Your task to perform on an android device: turn off location history Image 0: 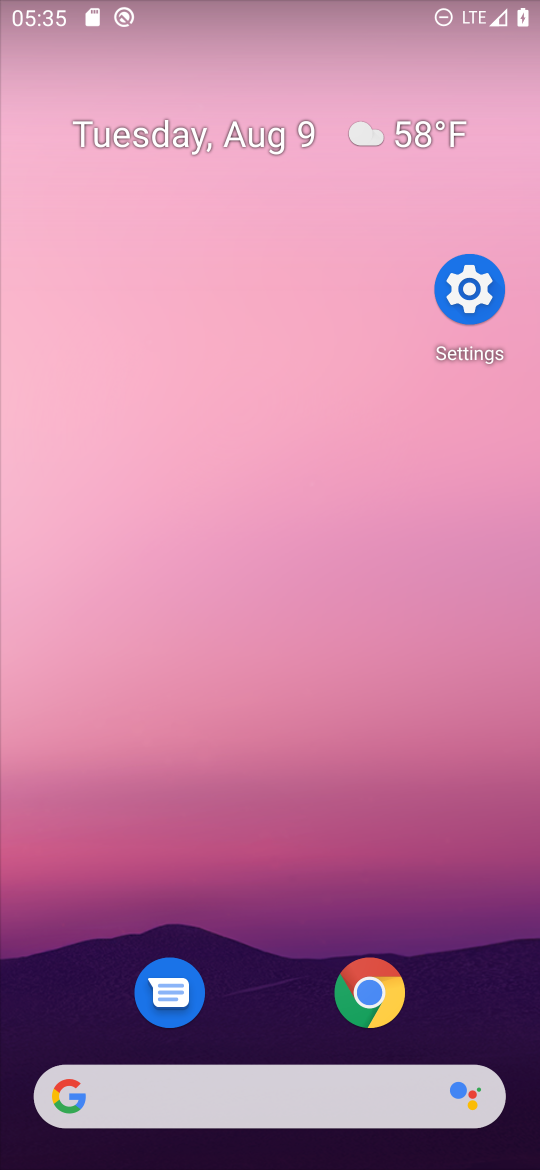
Step 0: drag from (345, 1097) to (28, 192)
Your task to perform on an android device: turn off location history Image 1: 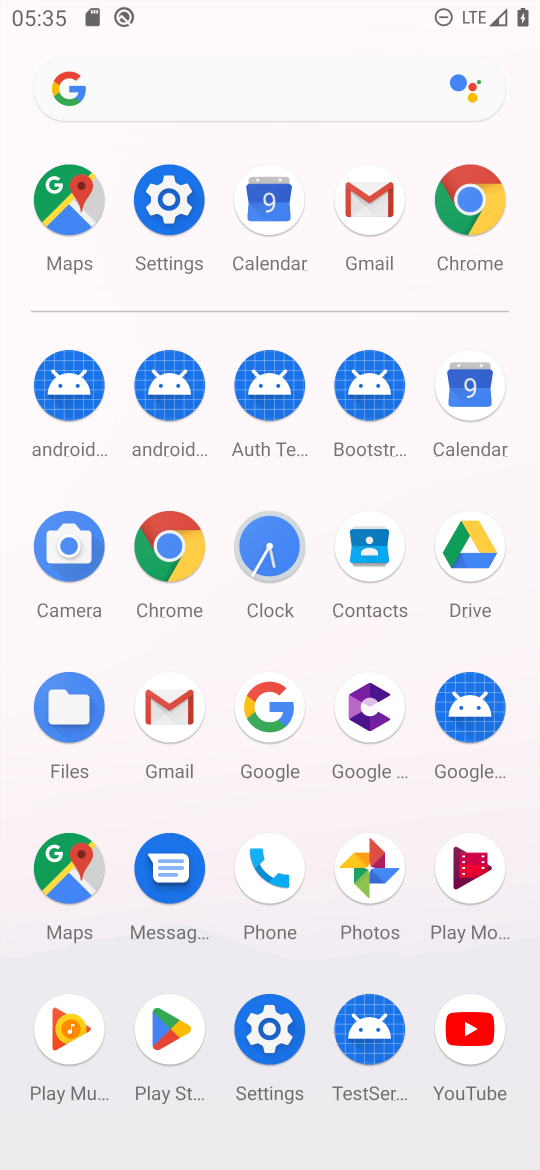
Step 1: click (194, 200)
Your task to perform on an android device: turn off location history Image 2: 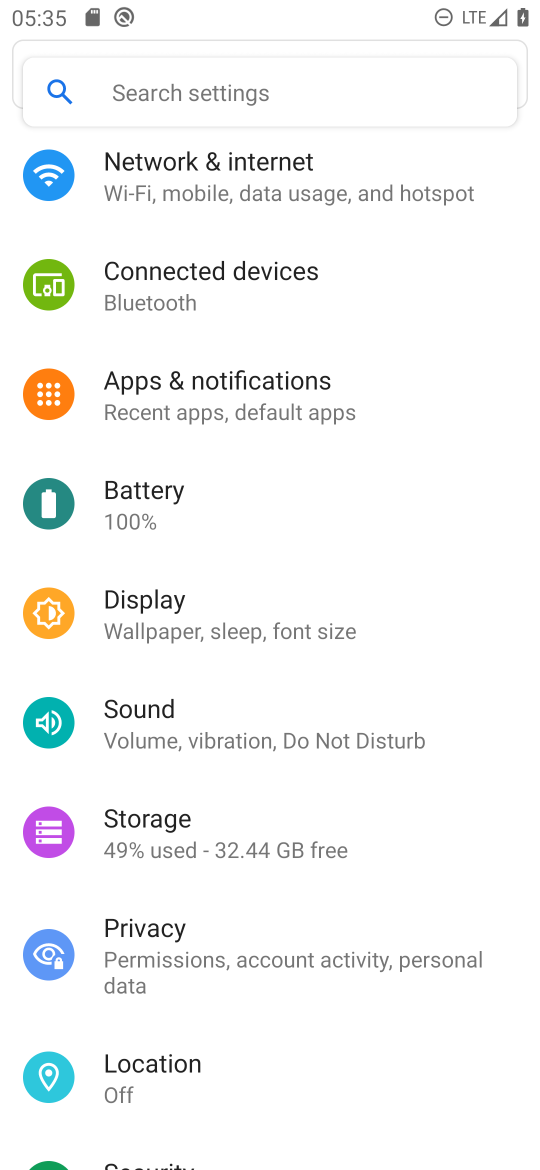
Step 2: click (135, 1108)
Your task to perform on an android device: turn off location history Image 3: 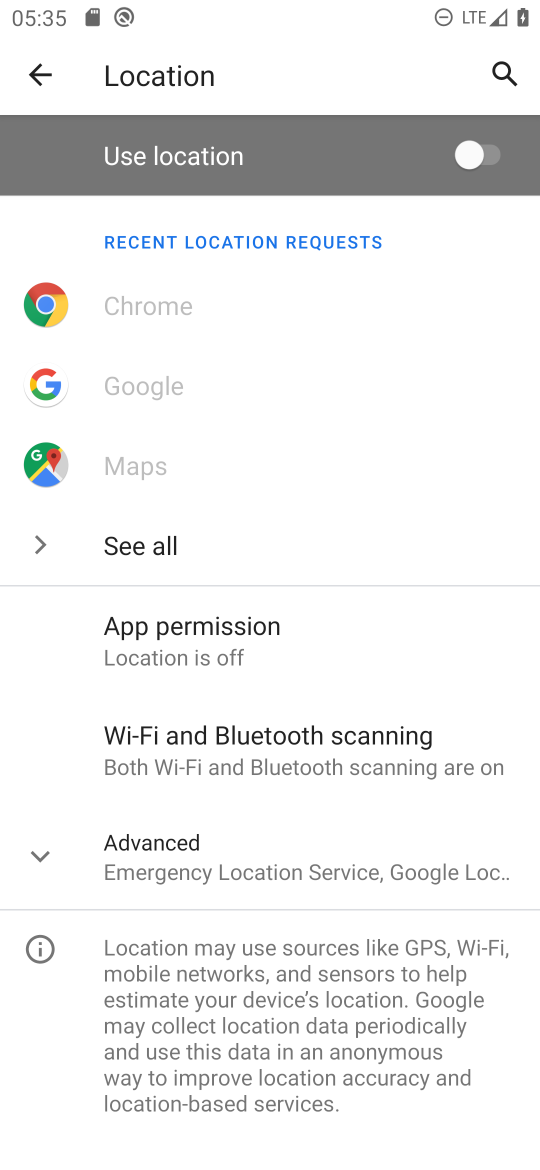
Step 3: click (195, 828)
Your task to perform on an android device: turn off location history Image 4: 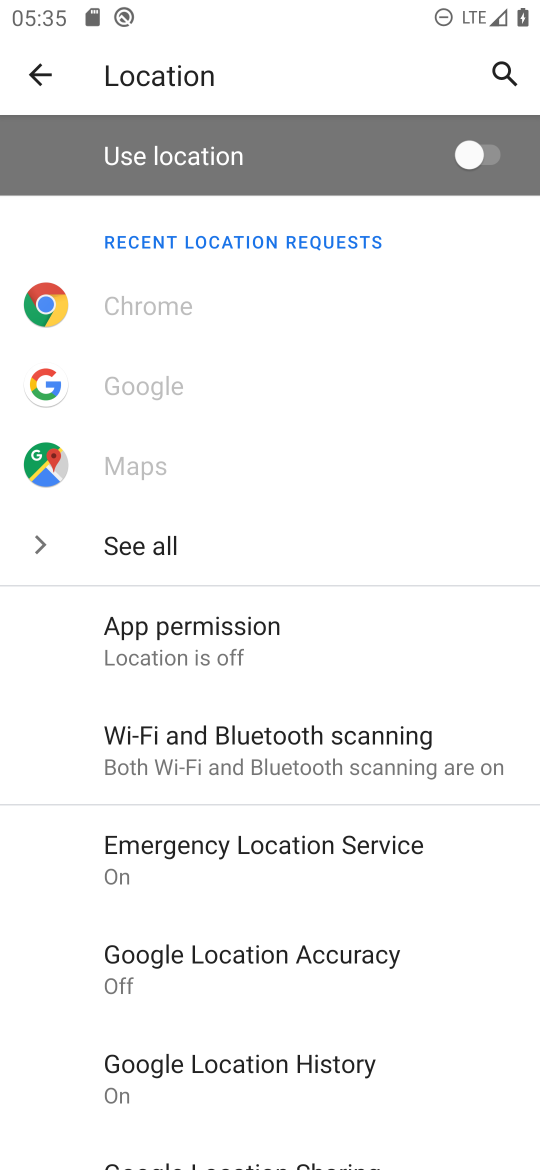
Step 4: click (295, 1057)
Your task to perform on an android device: turn off location history Image 5: 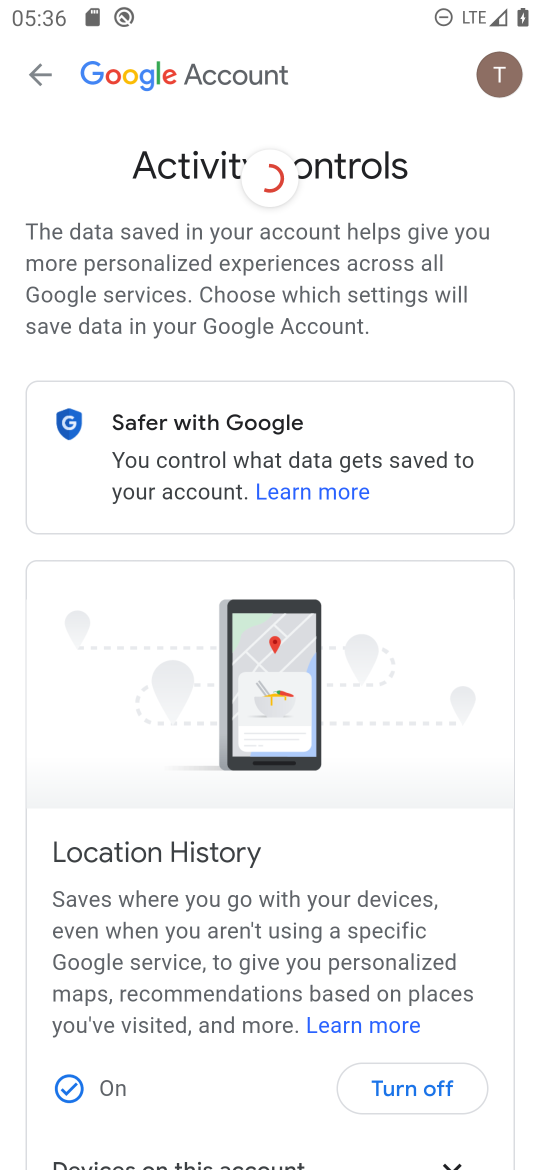
Step 5: click (391, 1085)
Your task to perform on an android device: turn off location history Image 6: 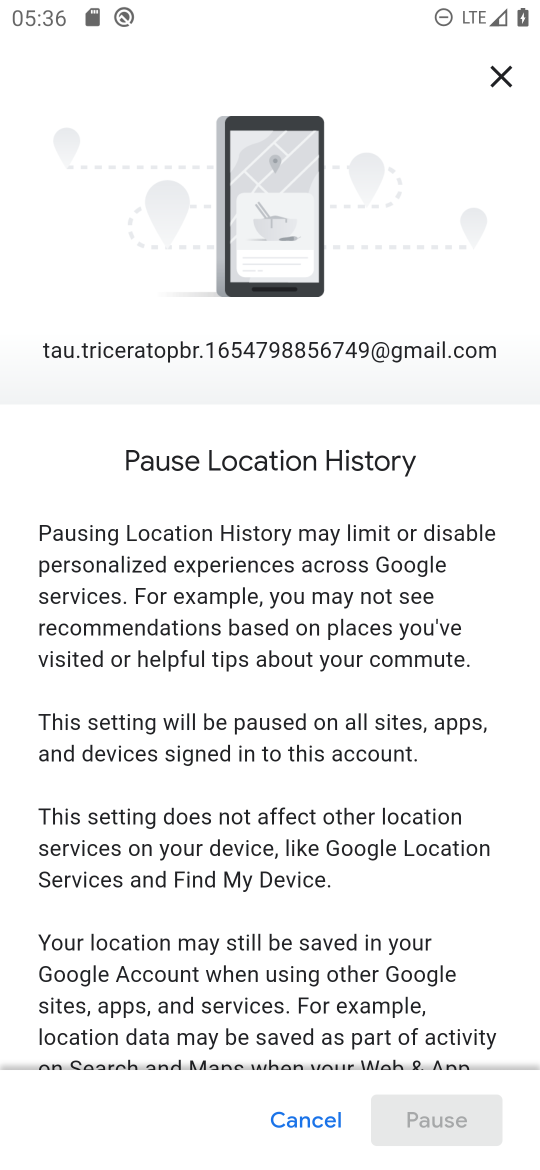
Step 6: drag from (463, 969) to (538, 686)
Your task to perform on an android device: turn off location history Image 7: 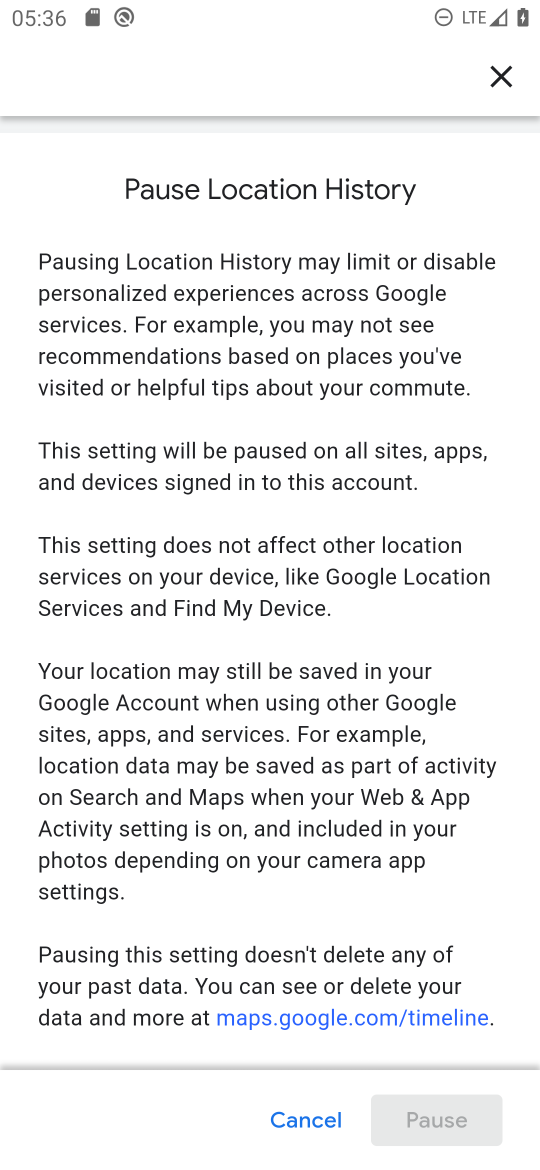
Step 7: drag from (407, 1020) to (194, 461)
Your task to perform on an android device: turn off location history Image 8: 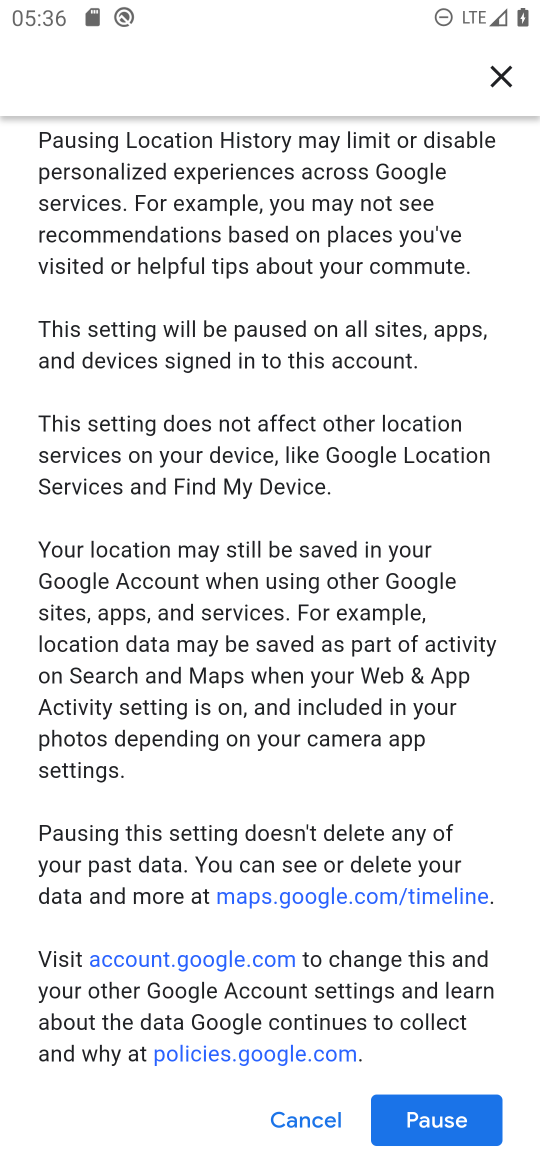
Step 8: click (433, 1121)
Your task to perform on an android device: turn off location history Image 9: 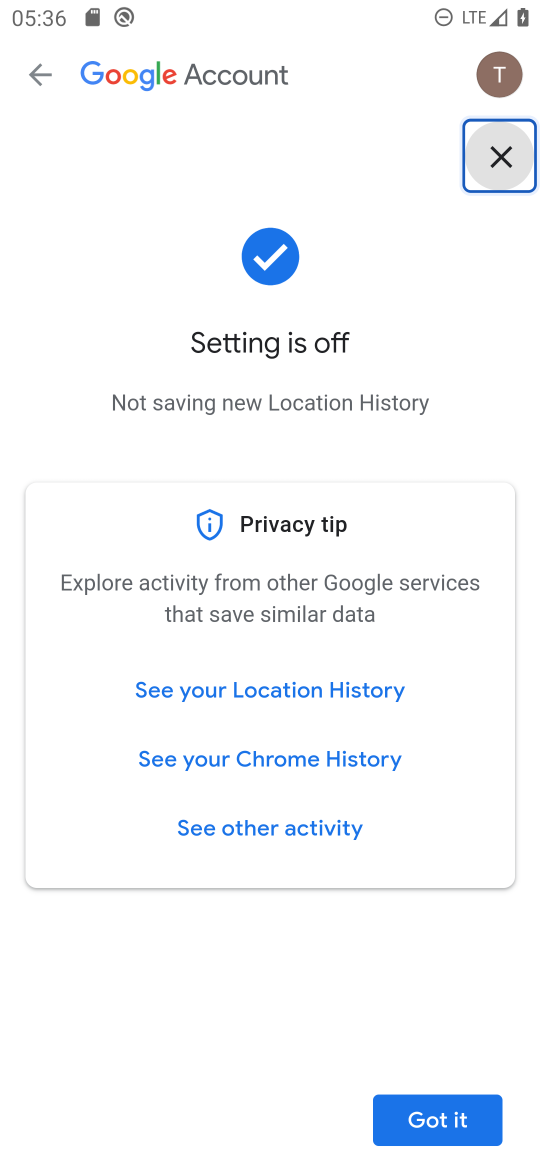
Step 9: task complete